Your task to perform on an android device: change text size in settings app Image 0: 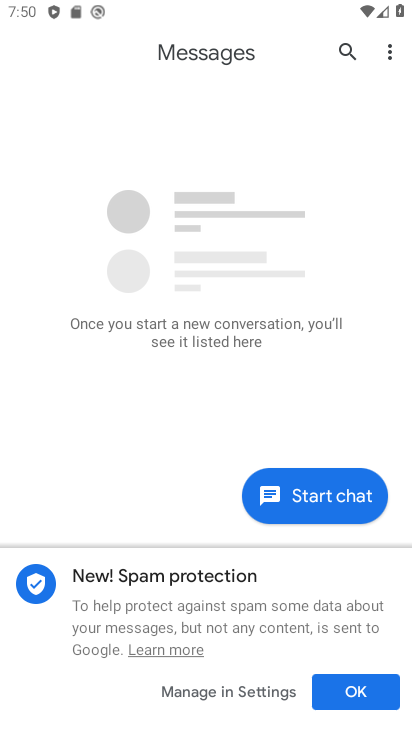
Step 0: press home button
Your task to perform on an android device: change text size in settings app Image 1: 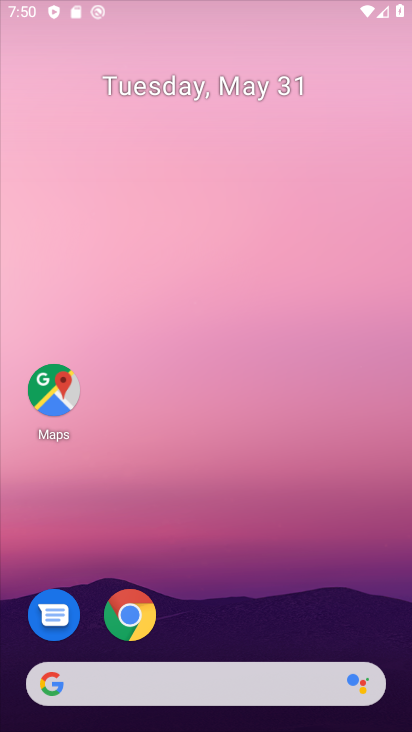
Step 1: drag from (198, 485) to (202, 137)
Your task to perform on an android device: change text size in settings app Image 2: 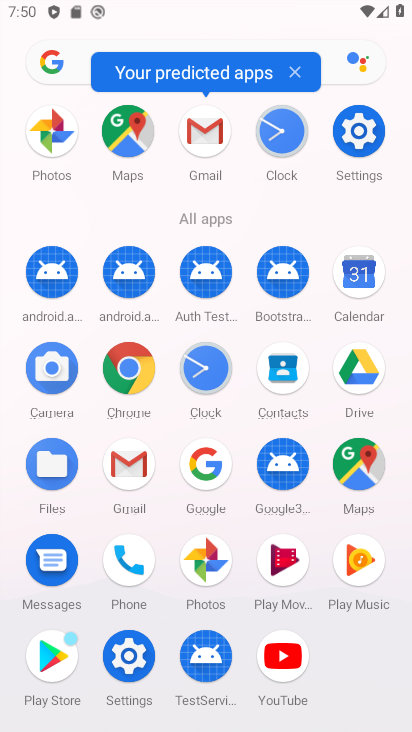
Step 2: click (347, 128)
Your task to perform on an android device: change text size in settings app Image 3: 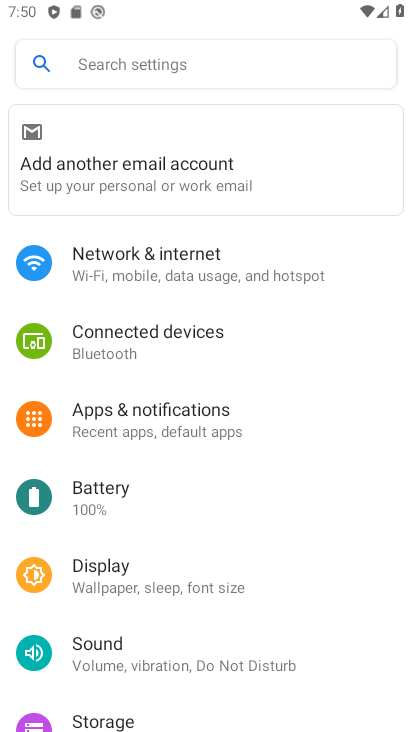
Step 3: click (148, 600)
Your task to perform on an android device: change text size in settings app Image 4: 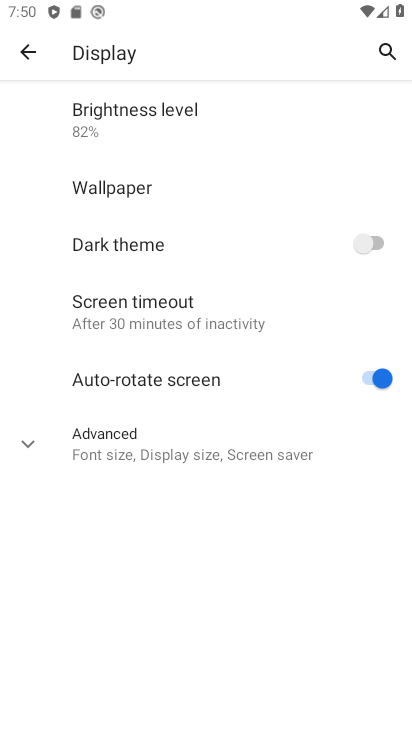
Step 4: click (141, 461)
Your task to perform on an android device: change text size in settings app Image 5: 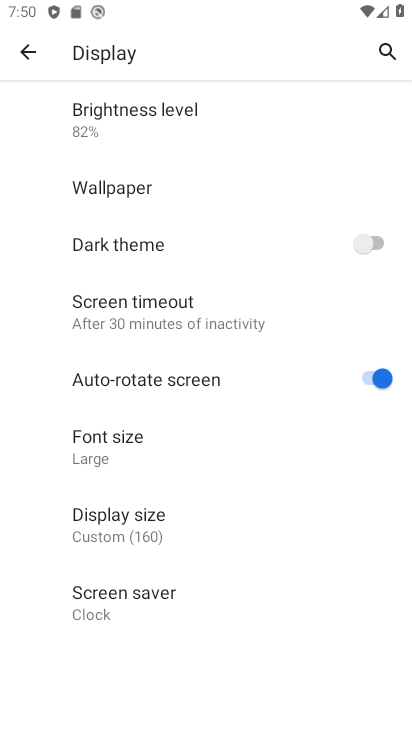
Step 5: click (138, 458)
Your task to perform on an android device: change text size in settings app Image 6: 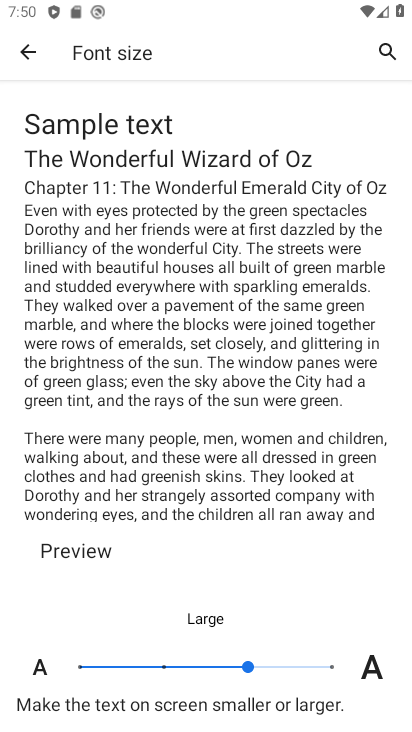
Step 6: click (86, 659)
Your task to perform on an android device: change text size in settings app Image 7: 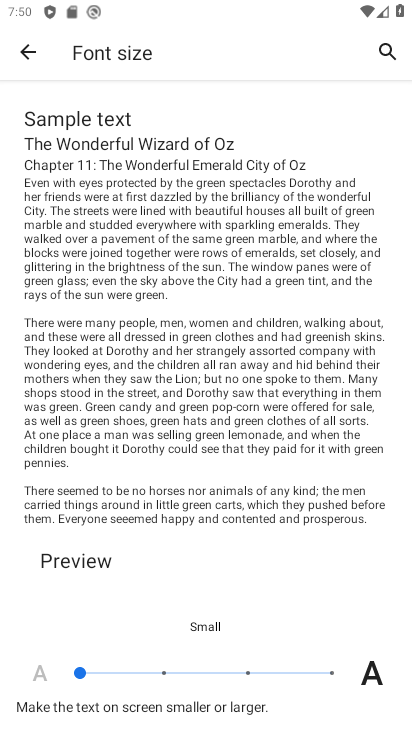
Step 7: task complete